Your task to perform on an android device: toggle notifications settings in the gmail app Image 0: 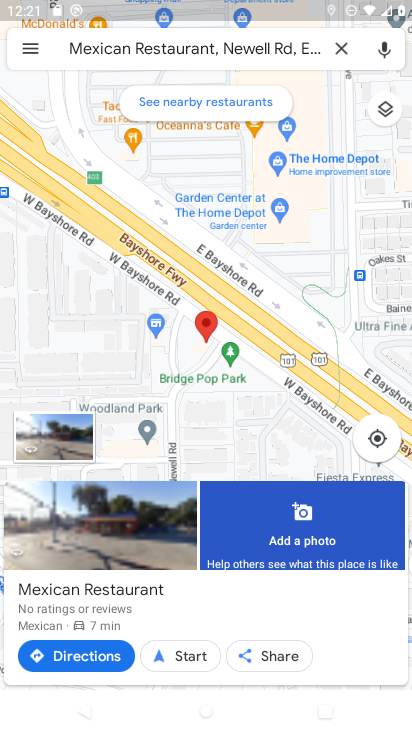
Step 0: press home button
Your task to perform on an android device: toggle notifications settings in the gmail app Image 1: 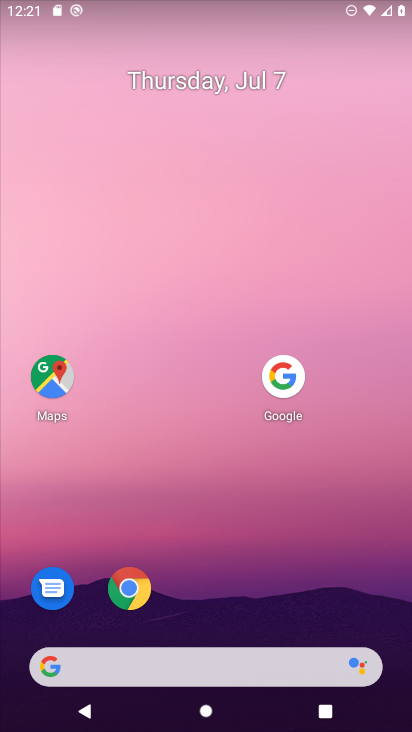
Step 1: drag from (199, 667) to (272, 188)
Your task to perform on an android device: toggle notifications settings in the gmail app Image 2: 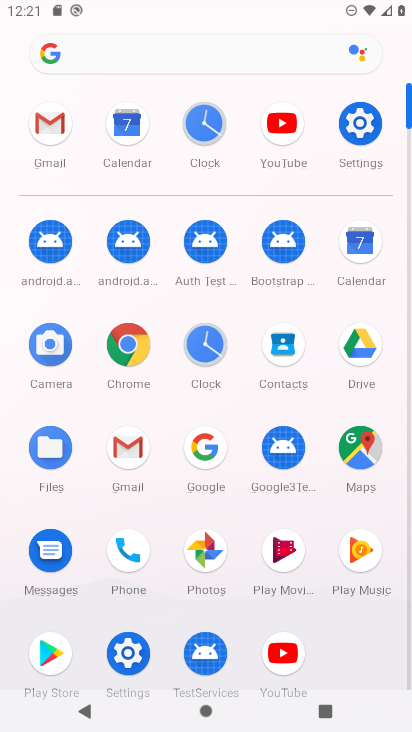
Step 2: click (122, 441)
Your task to perform on an android device: toggle notifications settings in the gmail app Image 3: 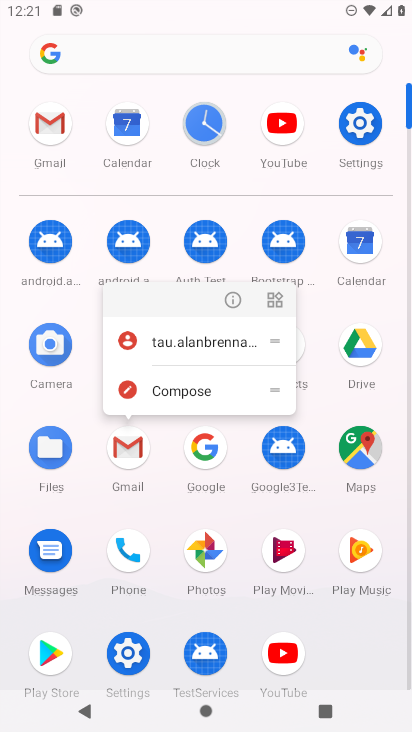
Step 3: click (132, 458)
Your task to perform on an android device: toggle notifications settings in the gmail app Image 4: 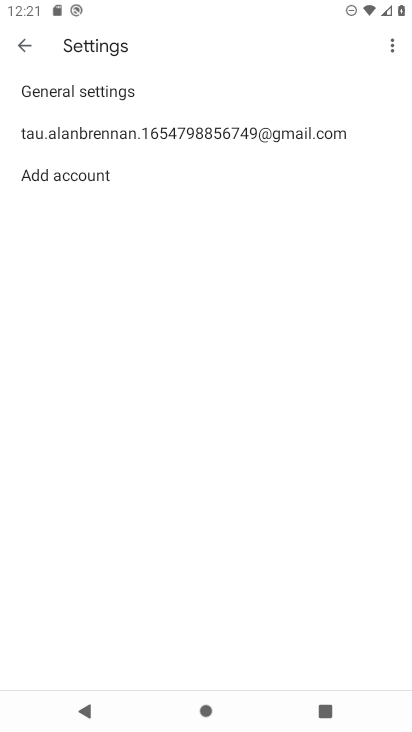
Step 4: click (222, 126)
Your task to perform on an android device: toggle notifications settings in the gmail app Image 5: 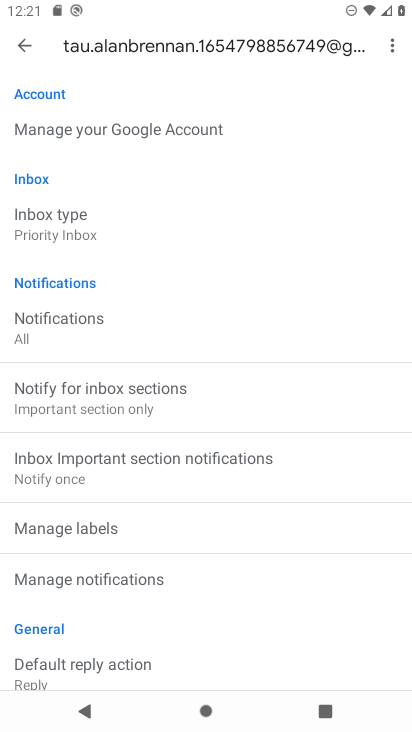
Step 5: click (69, 329)
Your task to perform on an android device: toggle notifications settings in the gmail app Image 6: 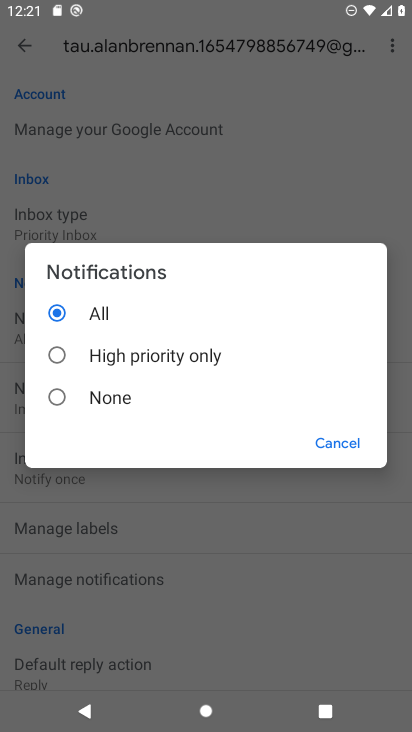
Step 6: click (56, 358)
Your task to perform on an android device: toggle notifications settings in the gmail app Image 7: 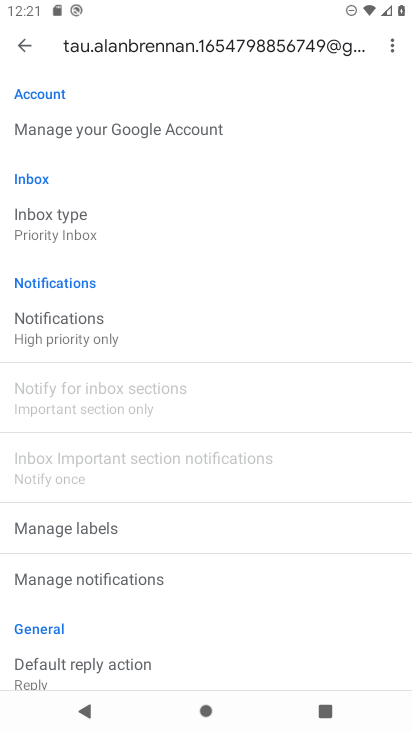
Step 7: task complete